Your task to perform on an android device: Clear the cart on target. Search for logitech g pro on target, select the first entry, add it to the cart, then select checkout. Image 0: 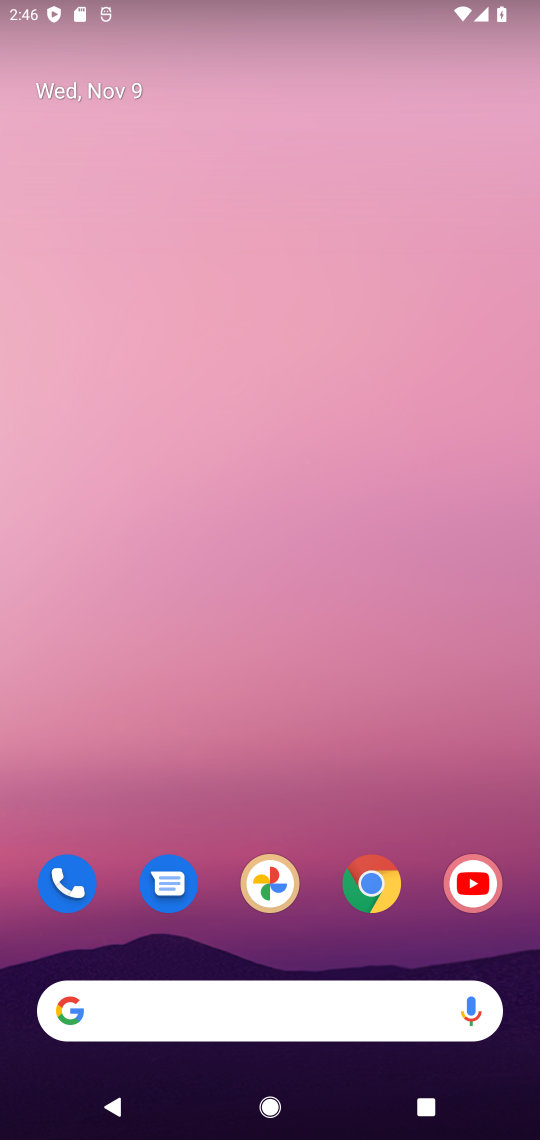
Step 0: click (369, 919)
Your task to perform on an android device: Clear the cart on target. Search for logitech g pro on target, select the first entry, add it to the cart, then select checkout. Image 1: 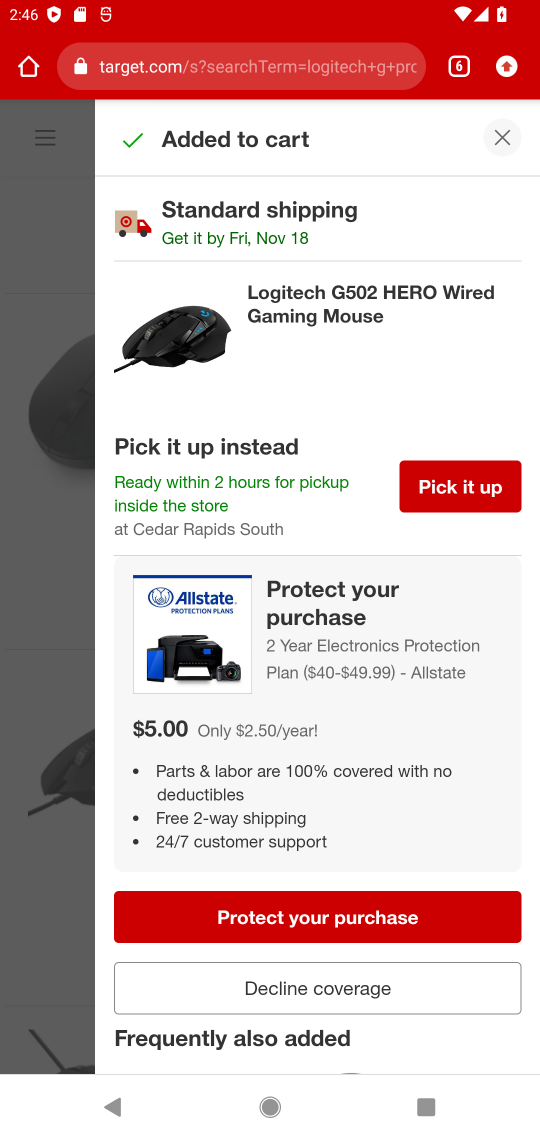
Step 1: click (495, 139)
Your task to perform on an android device: Clear the cart on target. Search for logitech g pro on target, select the first entry, add it to the cart, then select checkout. Image 2: 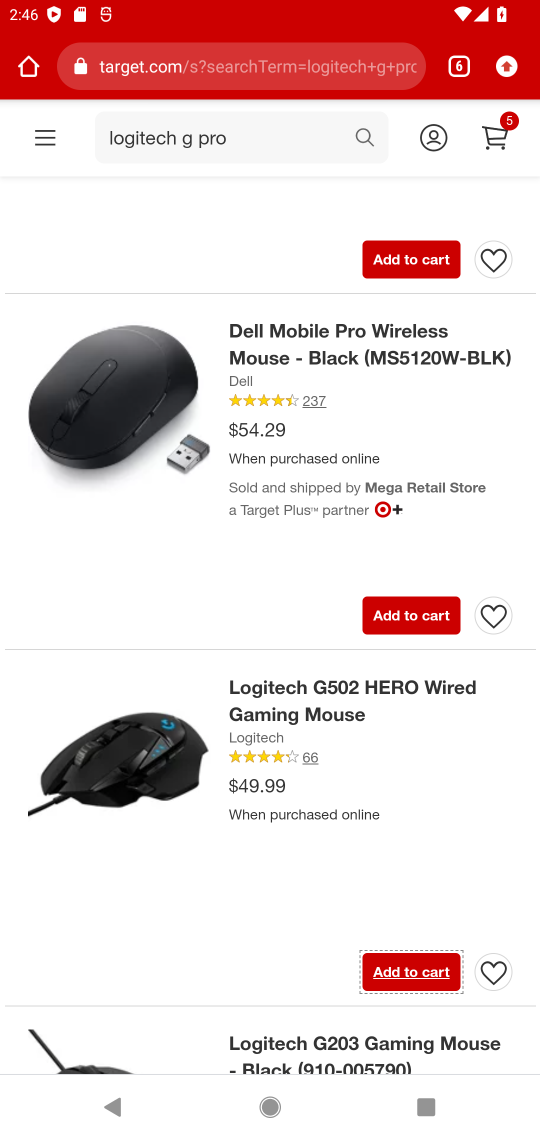
Step 2: click (498, 144)
Your task to perform on an android device: Clear the cart on target. Search for logitech g pro on target, select the first entry, add it to the cart, then select checkout. Image 3: 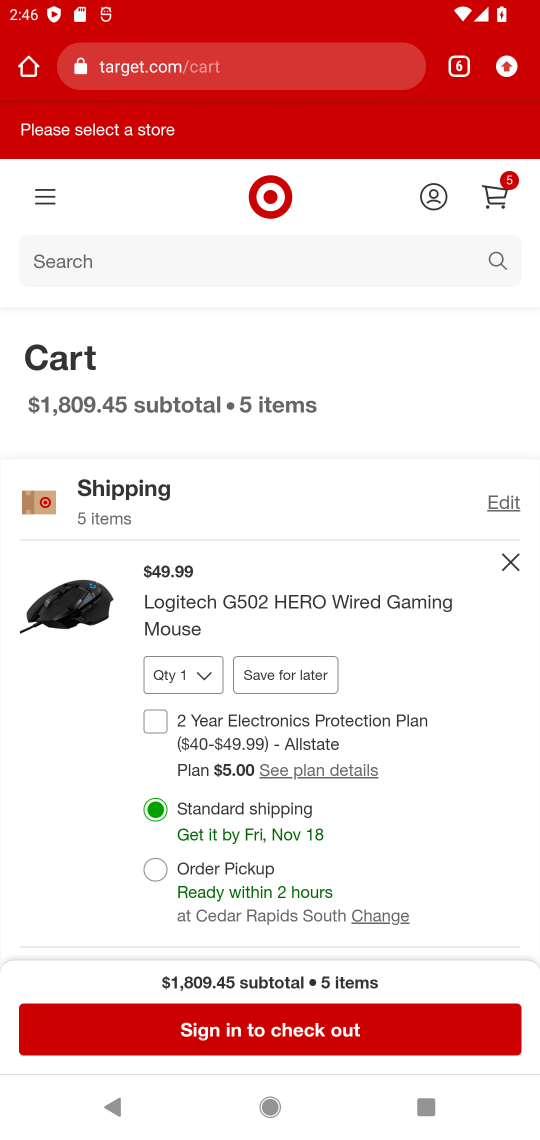
Step 3: click (499, 561)
Your task to perform on an android device: Clear the cart on target. Search for logitech g pro on target, select the first entry, add it to the cart, then select checkout. Image 4: 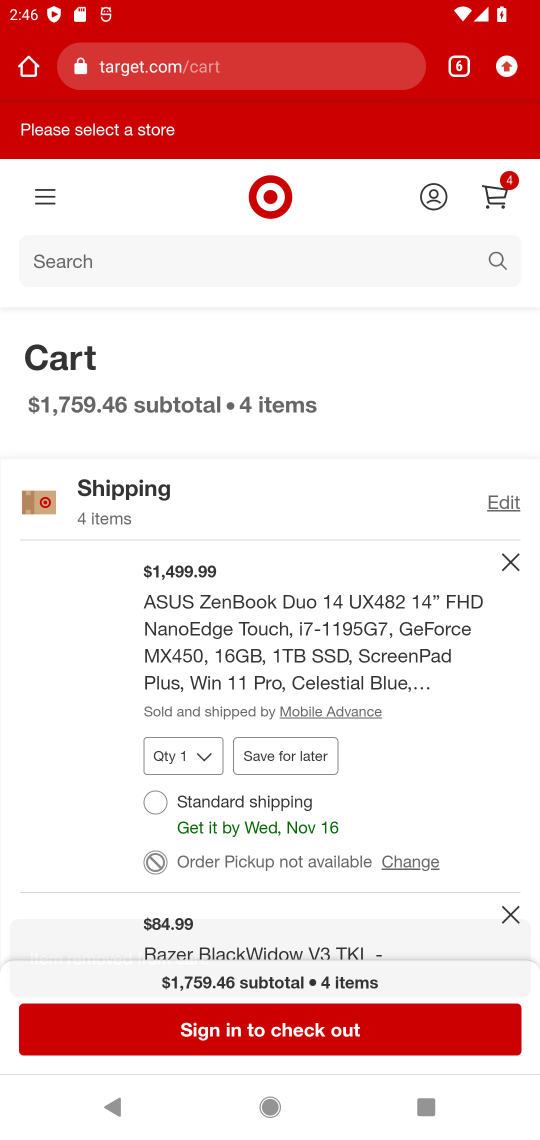
Step 4: click (507, 553)
Your task to perform on an android device: Clear the cart on target. Search for logitech g pro on target, select the first entry, add it to the cart, then select checkout. Image 5: 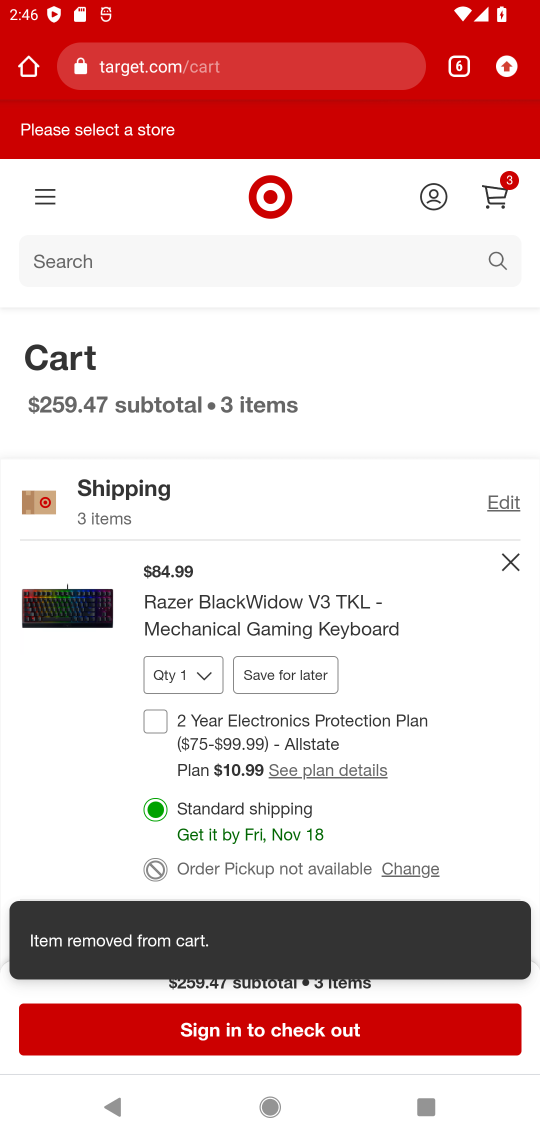
Step 5: click (507, 553)
Your task to perform on an android device: Clear the cart on target. Search for logitech g pro on target, select the first entry, add it to the cart, then select checkout. Image 6: 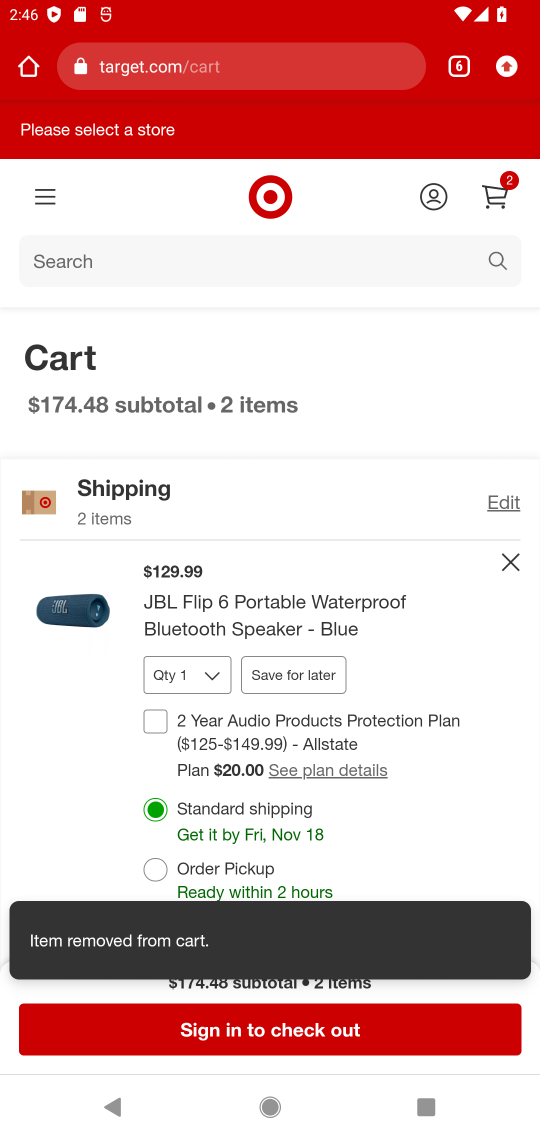
Step 6: click (507, 553)
Your task to perform on an android device: Clear the cart on target. Search for logitech g pro on target, select the first entry, add it to the cart, then select checkout. Image 7: 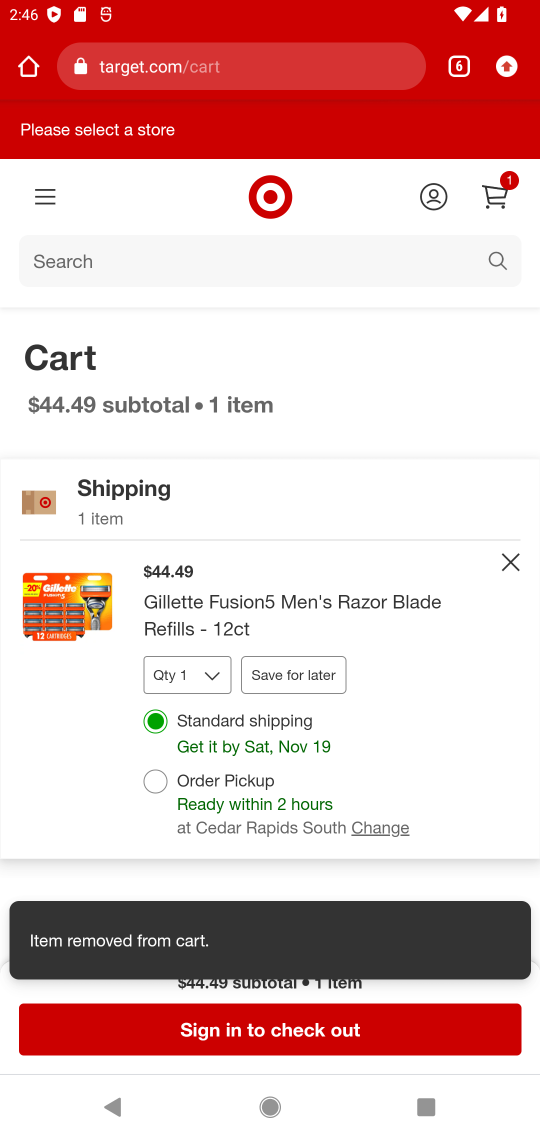
Step 7: click (507, 553)
Your task to perform on an android device: Clear the cart on target. Search for logitech g pro on target, select the first entry, add it to the cart, then select checkout. Image 8: 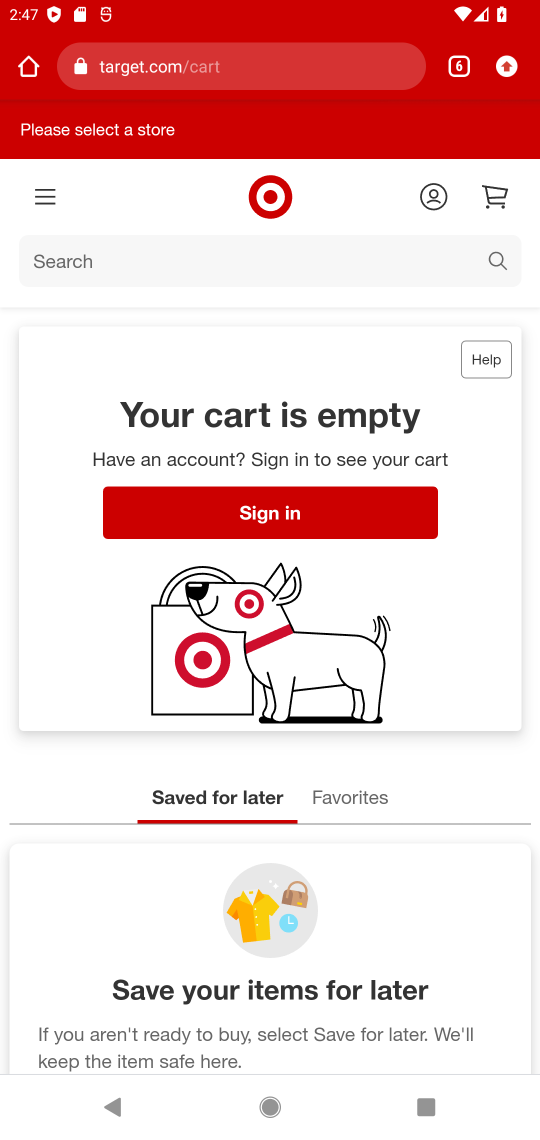
Step 8: click (97, 272)
Your task to perform on an android device: Clear the cart on target. Search for logitech g pro on target, select the first entry, add it to the cart, then select checkout. Image 9: 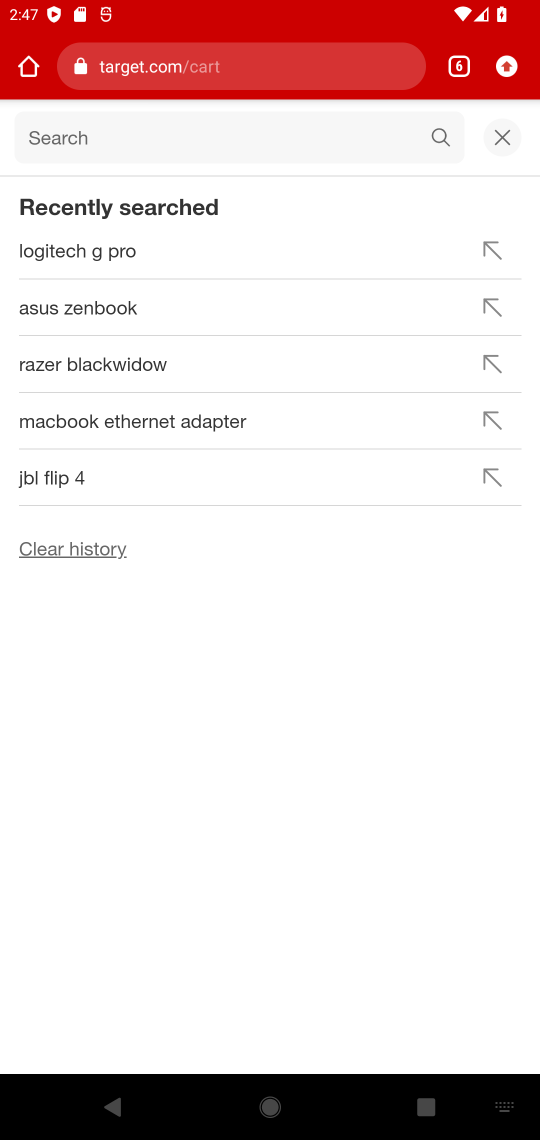
Step 9: click (57, 250)
Your task to perform on an android device: Clear the cart on target. Search for logitech g pro on target, select the first entry, add it to the cart, then select checkout. Image 10: 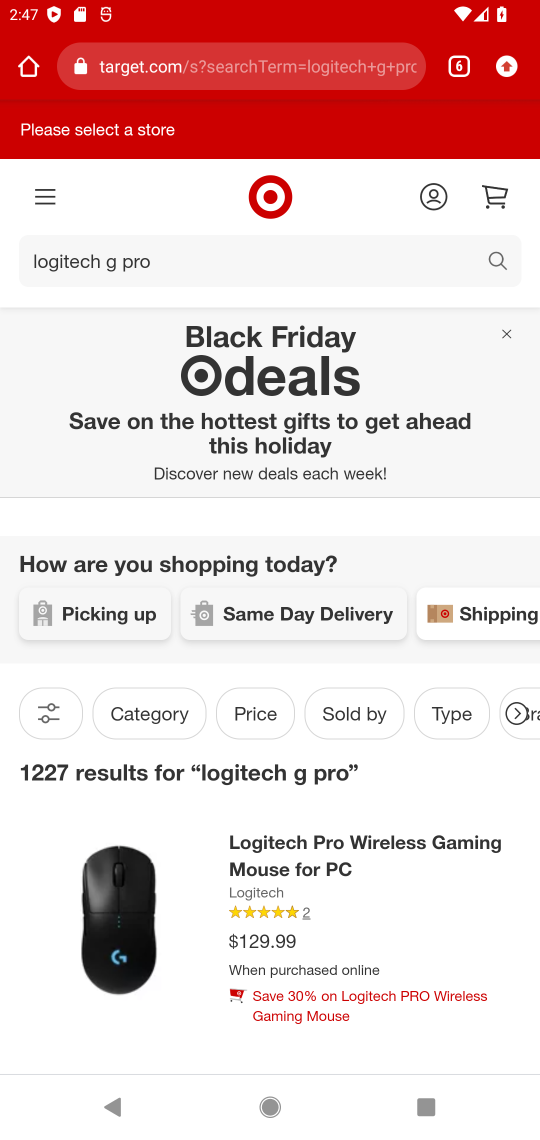
Step 10: drag from (257, 901) to (305, 441)
Your task to perform on an android device: Clear the cart on target. Search for logitech g pro on target, select the first entry, add it to the cart, then select checkout. Image 11: 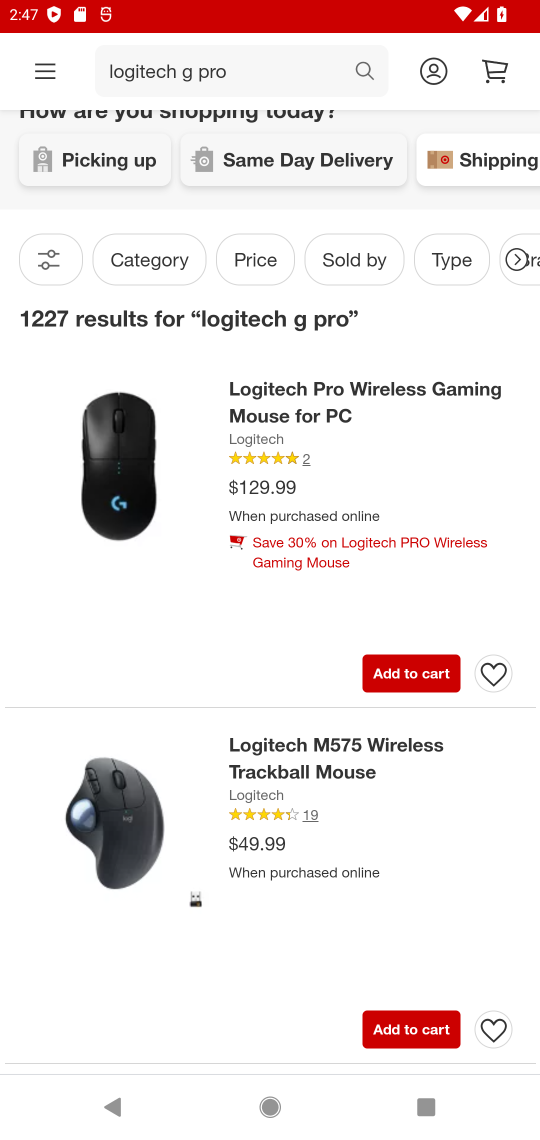
Step 11: click (421, 672)
Your task to perform on an android device: Clear the cart on target. Search for logitech g pro on target, select the first entry, add it to the cart, then select checkout. Image 12: 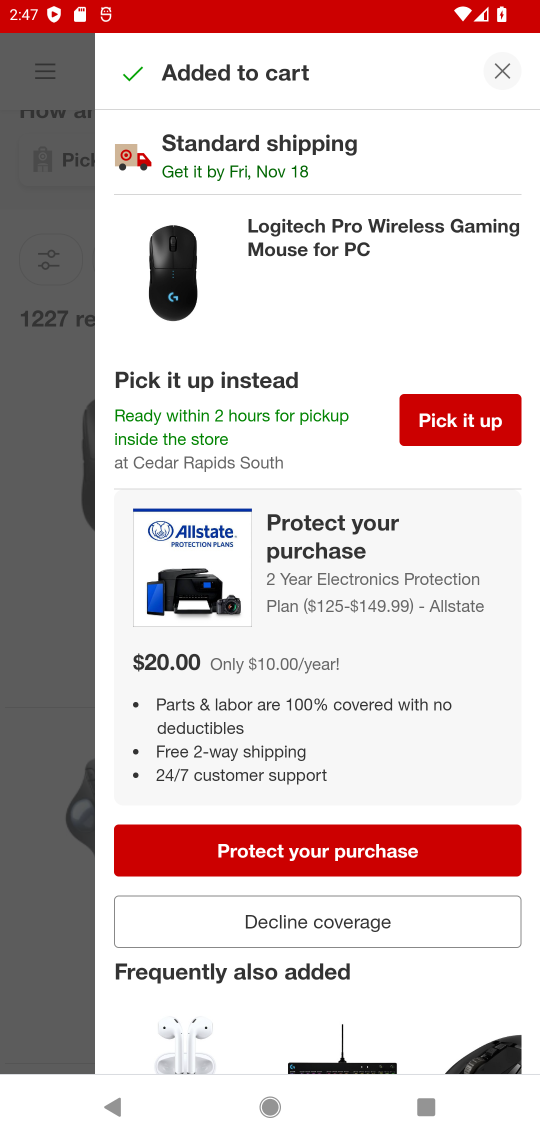
Step 12: click (498, 81)
Your task to perform on an android device: Clear the cart on target. Search for logitech g pro on target, select the first entry, add it to the cart, then select checkout. Image 13: 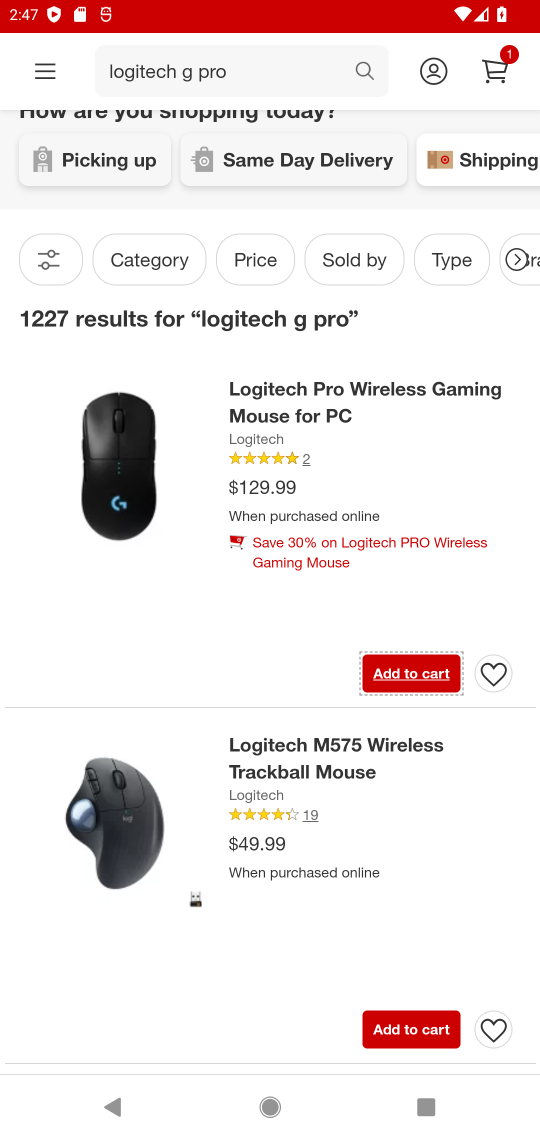
Step 13: task complete